Your task to perform on an android device: Open accessibility settings Image 0: 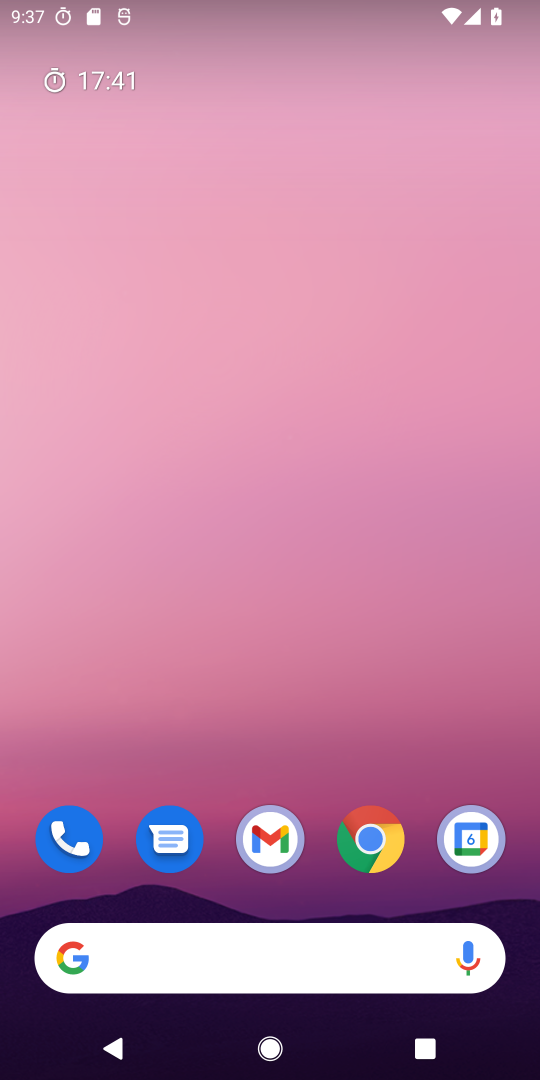
Step 0: press home button
Your task to perform on an android device: Open accessibility settings Image 1: 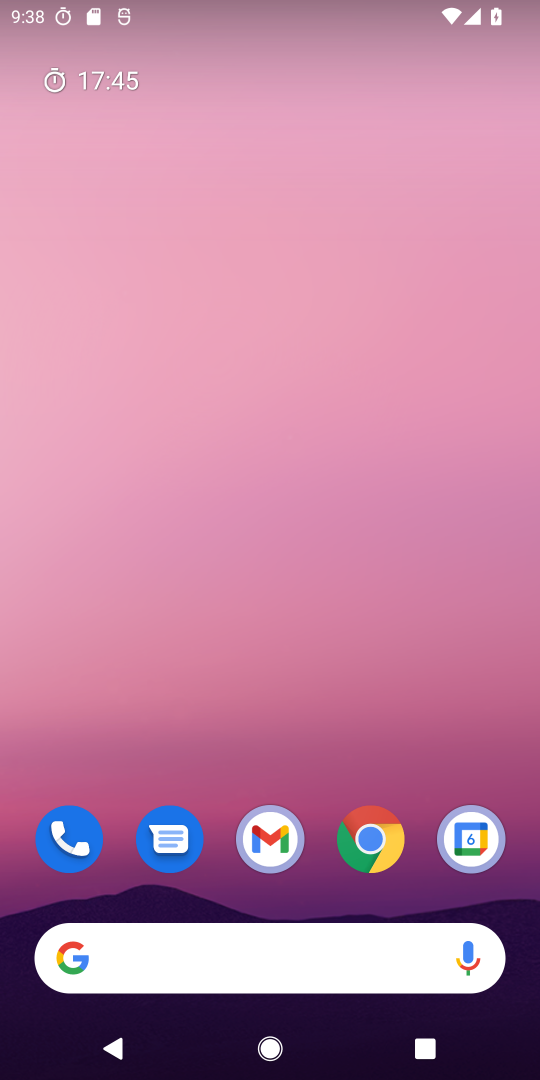
Step 1: drag from (306, 889) to (405, 0)
Your task to perform on an android device: Open accessibility settings Image 2: 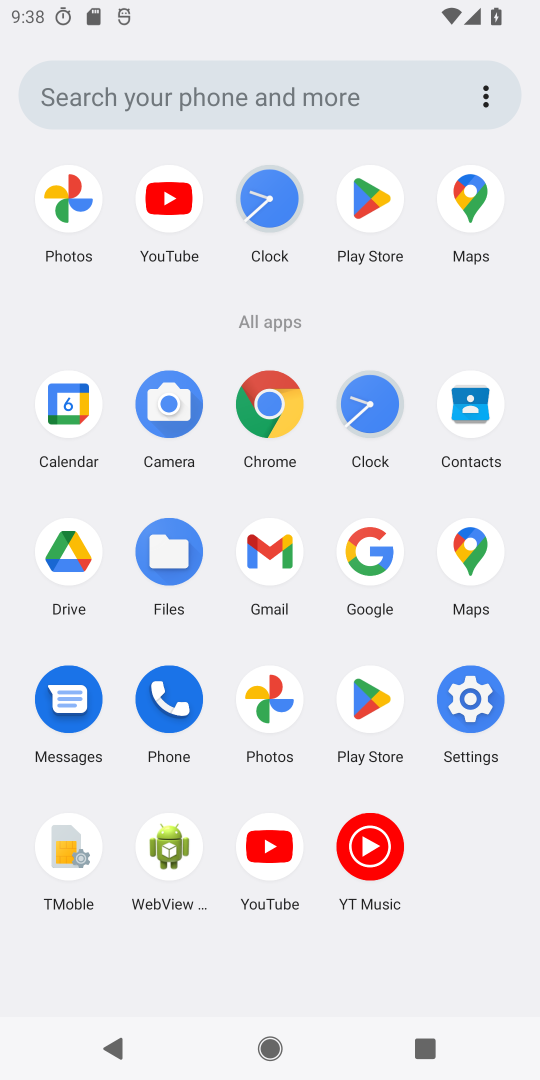
Step 2: click (467, 696)
Your task to perform on an android device: Open accessibility settings Image 3: 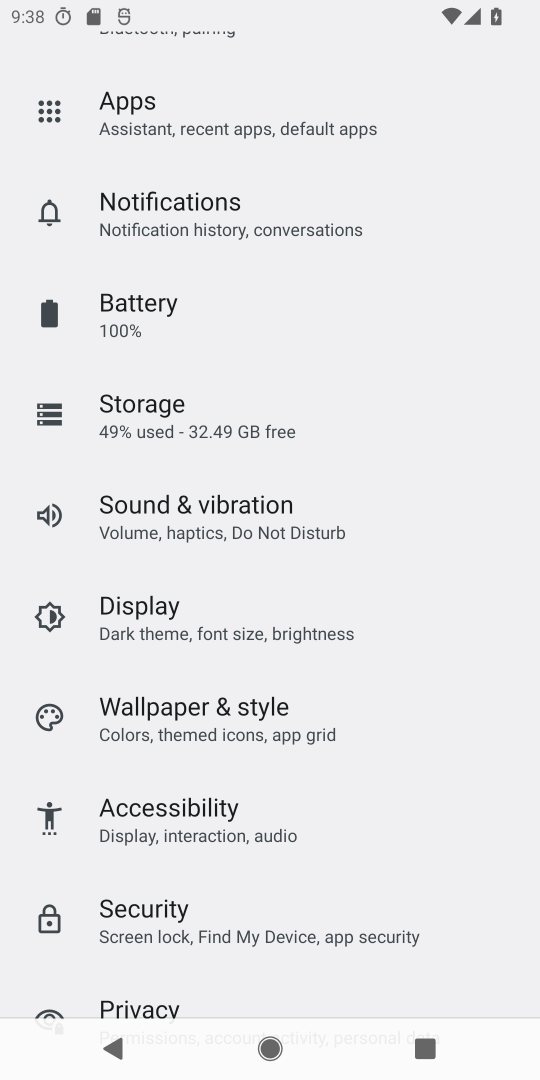
Step 3: click (245, 808)
Your task to perform on an android device: Open accessibility settings Image 4: 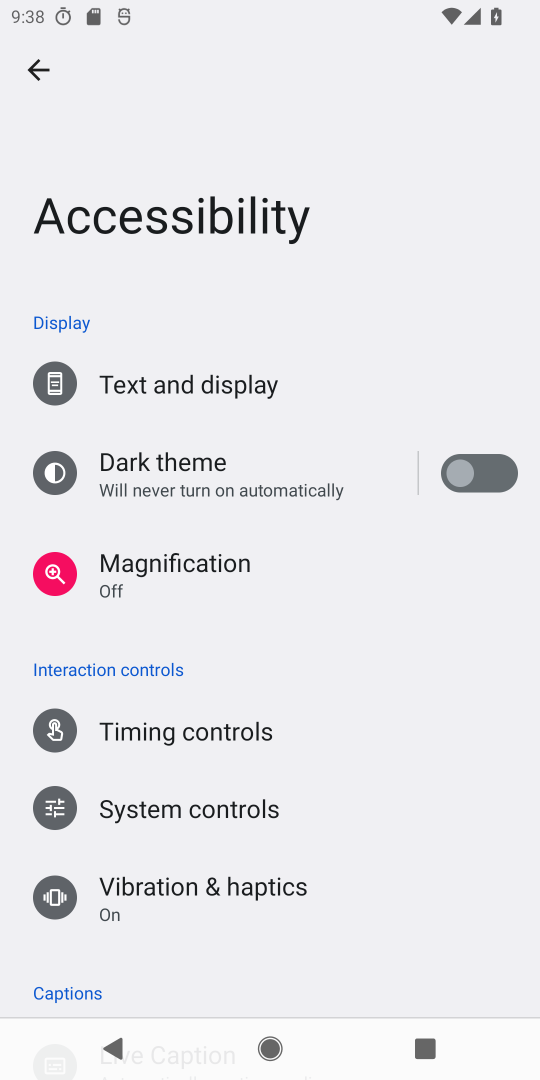
Step 4: task complete